Your task to perform on an android device: Show me recent news Image 0: 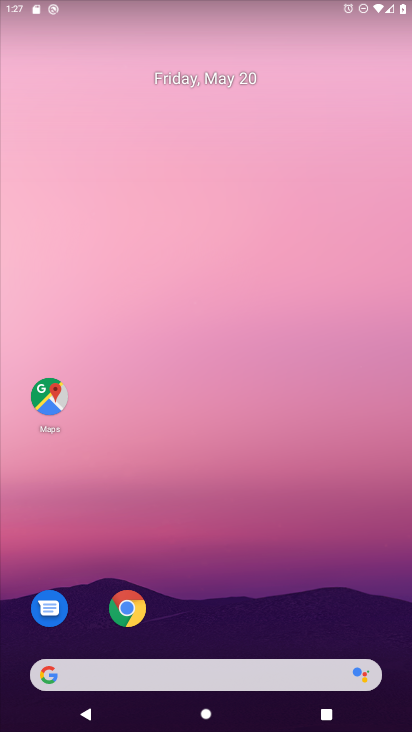
Step 0: press home button
Your task to perform on an android device: Show me recent news Image 1: 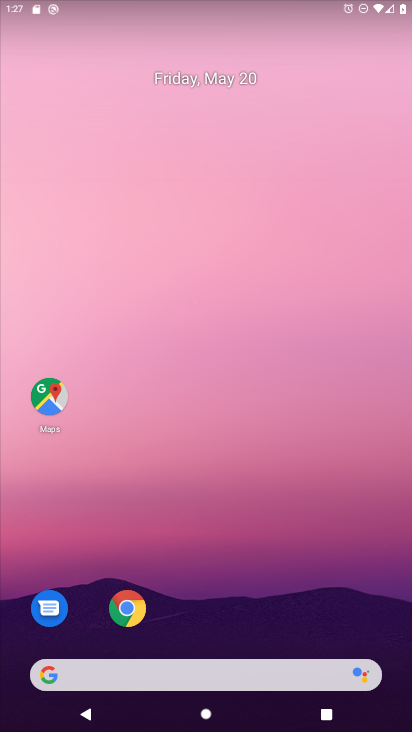
Step 1: press home button
Your task to perform on an android device: Show me recent news Image 2: 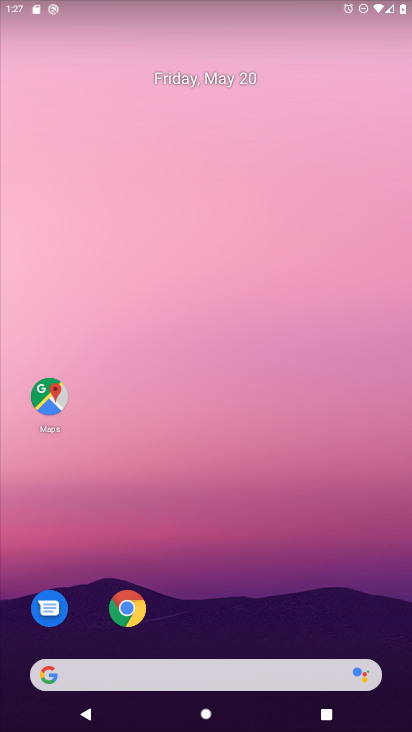
Step 2: drag from (100, 727) to (129, 708)
Your task to perform on an android device: Show me recent news Image 3: 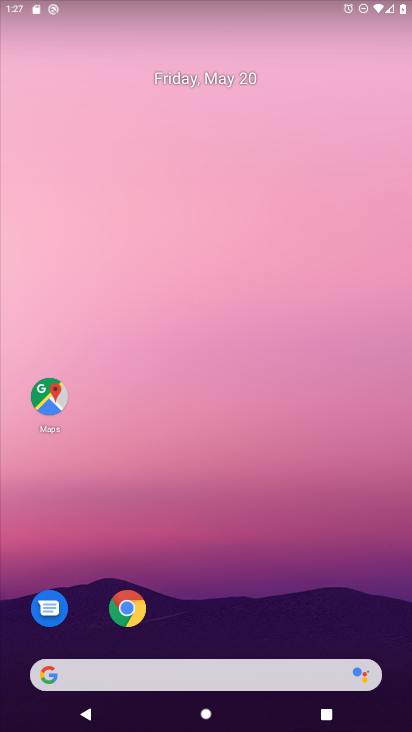
Step 3: click (118, 613)
Your task to perform on an android device: Show me recent news Image 4: 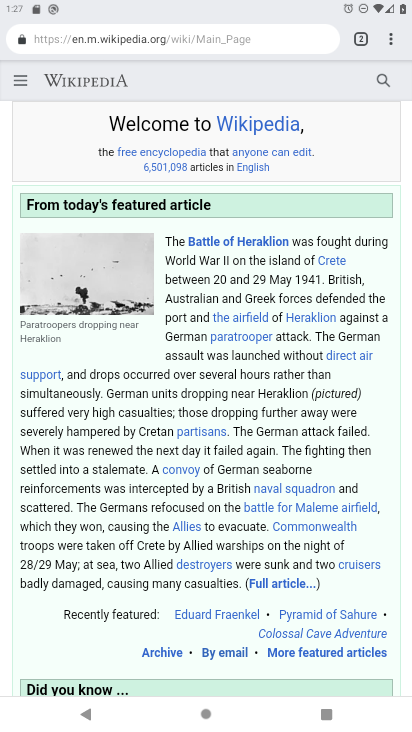
Step 4: click (153, 47)
Your task to perform on an android device: Show me recent news Image 5: 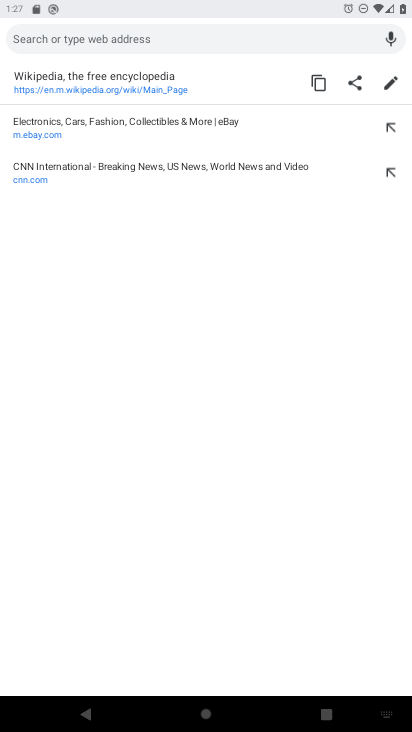
Step 5: click (151, 43)
Your task to perform on an android device: Show me recent news Image 6: 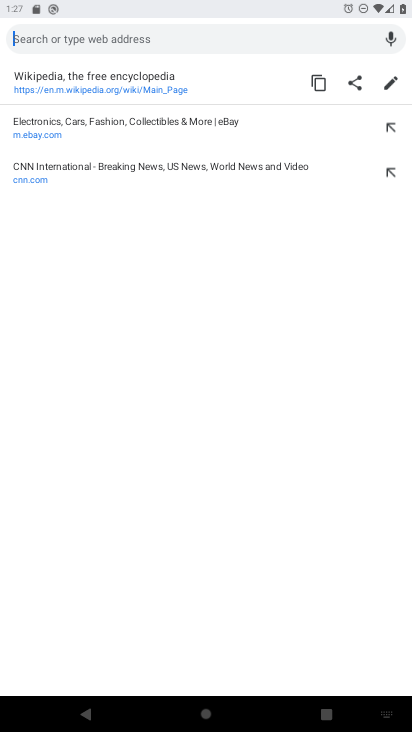
Step 6: type "Show me recent news"
Your task to perform on an android device: Show me recent news Image 7: 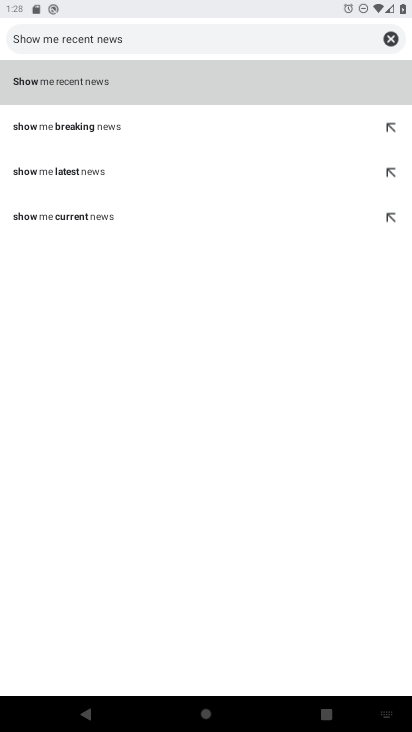
Step 7: click (22, 74)
Your task to perform on an android device: Show me recent news Image 8: 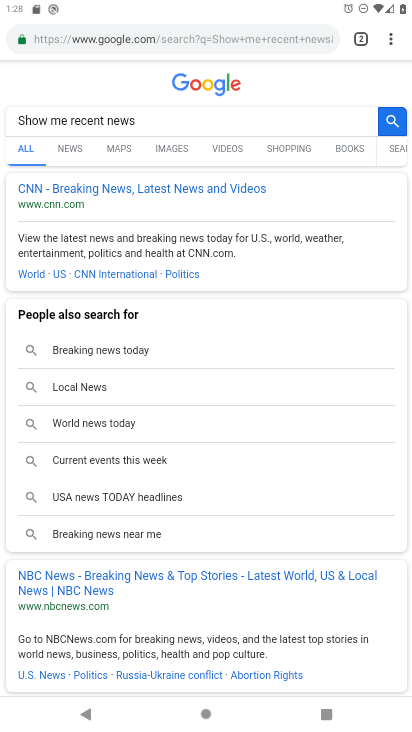
Step 8: task complete